Your task to perform on an android device: find snoozed emails in the gmail app Image 0: 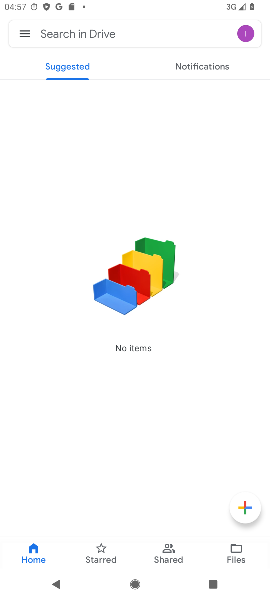
Step 0: press home button
Your task to perform on an android device: find snoozed emails in the gmail app Image 1: 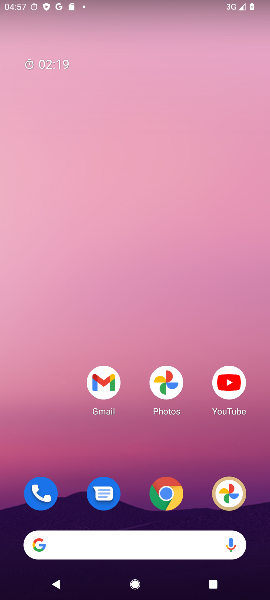
Step 1: drag from (64, 462) to (60, 179)
Your task to perform on an android device: find snoozed emails in the gmail app Image 2: 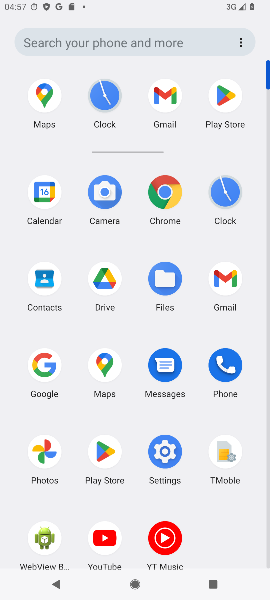
Step 2: click (223, 286)
Your task to perform on an android device: find snoozed emails in the gmail app Image 3: 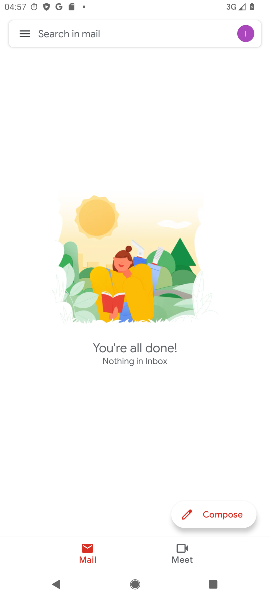
Step 3: click (26, 34)
Your task to perform on an android device: find snoozed emails in the gmail app Image 4: 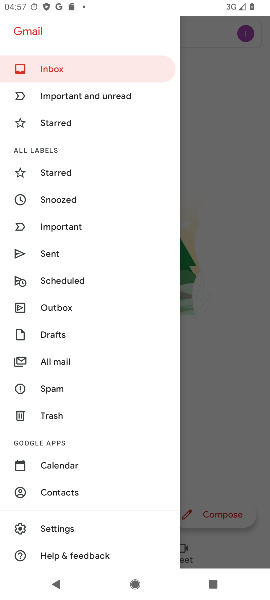
Step 4: click (74, 198)
Your task to perform on an android device: find snoozed emails in the gmail app Image 5: 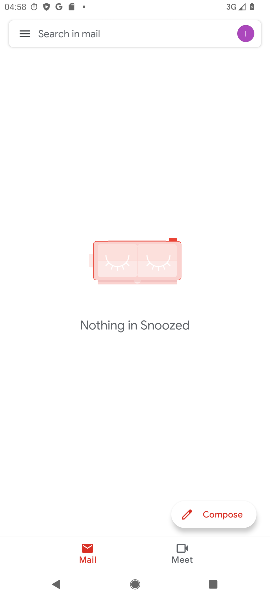
Step 5: task complete